Your task to perform on an android device: Open Chrome and go to the settings page Image 0: 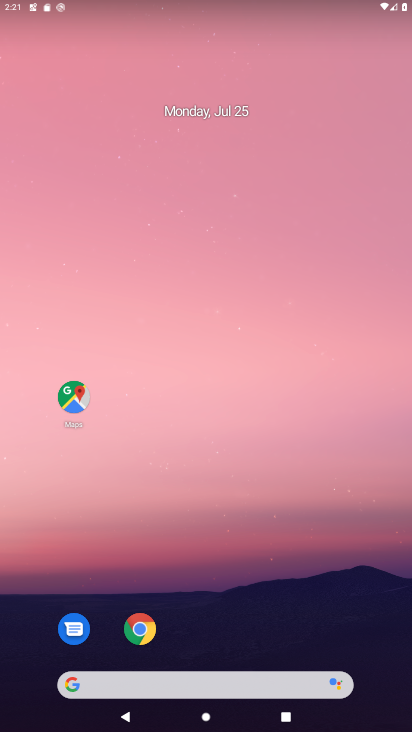
Step 0: drag from (307, 554) to (208, 2)
Your task to perform on an android device: Open Chrome and go to the settings page Image 1: 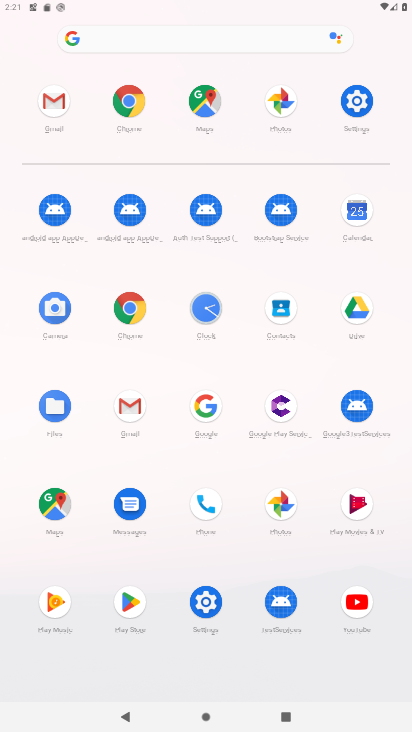
Step 1: click (132, 108)
Your task to perform on an android device: Open Chrome and go to the settings page Image 2: 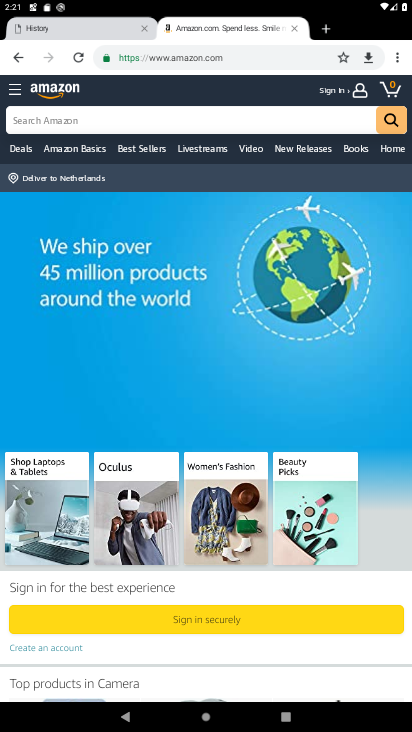
Step 2: task complete